Your task to perform on an android device: Open calendar and show me the first week of next month Image 0: 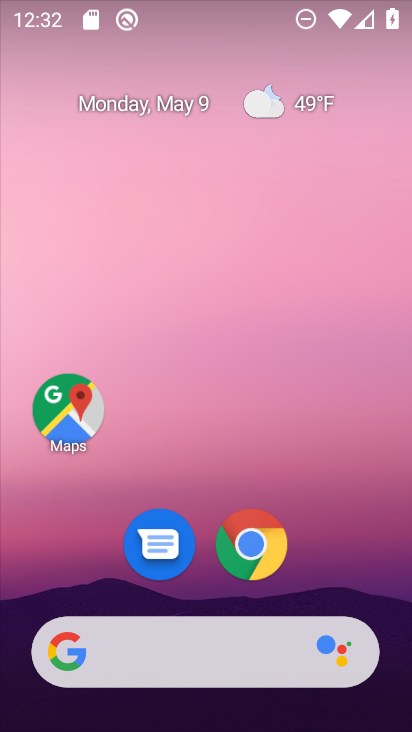
Step 0: click (323, 65)
Your task to perform on an android device: Open calendar and show me the first week of next month Image 1: 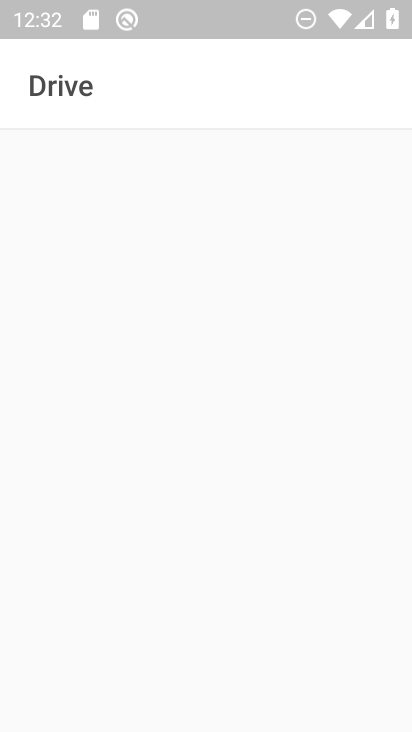
Step 1: drag from (316, 577) to (307, 258)
Your task to perform on an android device: Open calendar and show me the first week of next month Image 2: 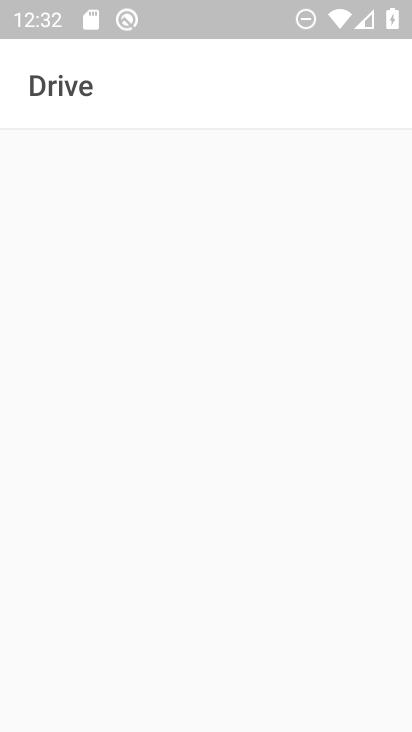
Step 2: press home button
Your task to perform on an android device: Open calendar and show me the first week of next month Image 3: 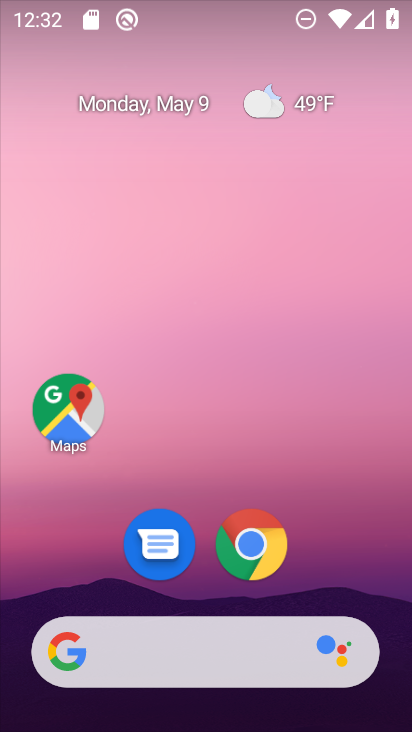
Step 3: drag from (361, 564) to (378, 105)
Your task to perform on an android device: Open calendar and show me the first week of next month Image 4: 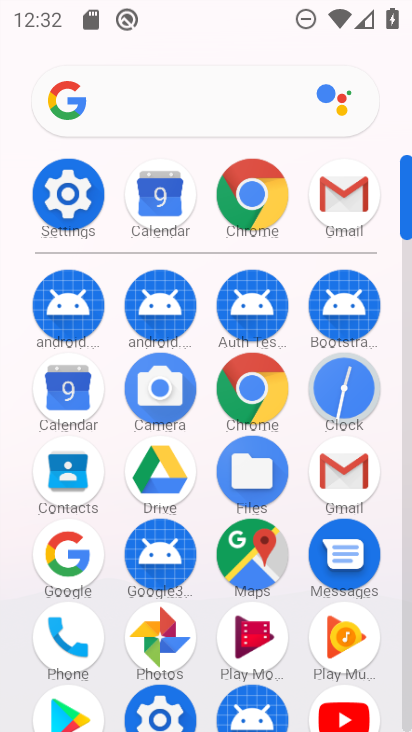
Step 4: click (67, 405)
Your task to perform on an android device: Open calendar and show me the first week of next month Image 5: 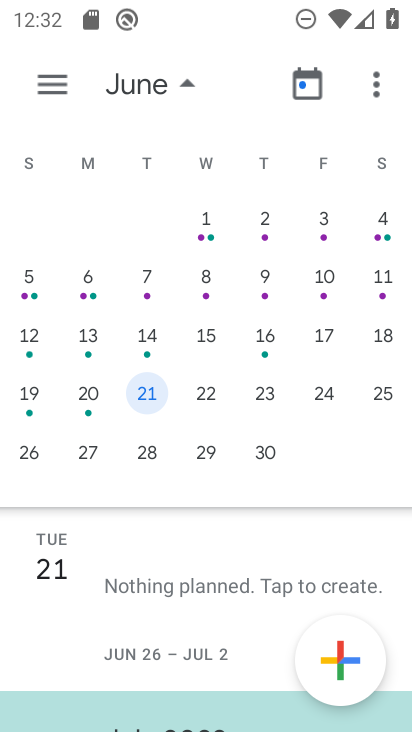
Step 5: drag from (357, 292) to (15, 257)
Your task to perform on an android device: Open calendar and show me the first week of next month Image 6: 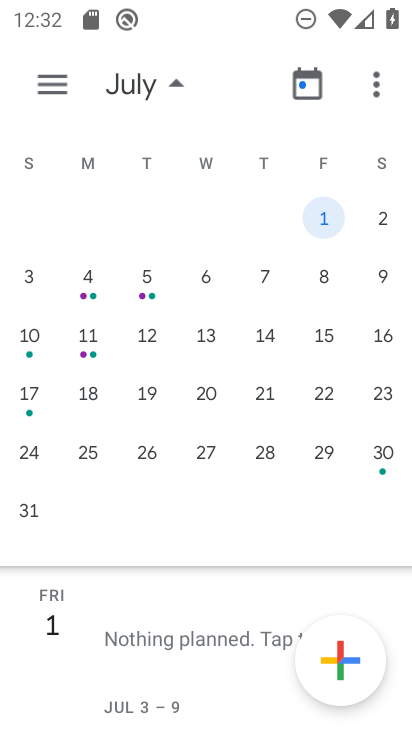
Step 6: click (141, 285)
Your task to perform on an android device: Open calendar and show me the first week of next month Image 7: 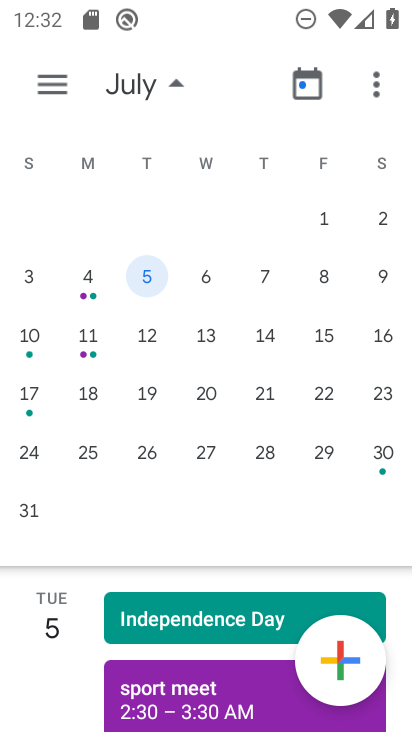
Step 7: task complete